Your task to perform on an android device: toggle translation in the chrome app Image 0: 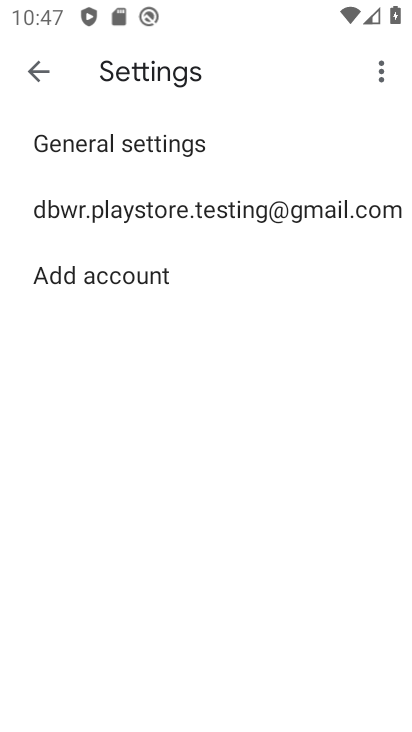
Step 0: press home button
Your task to perform on an android device: toggle translation in the chrome app Image 1: 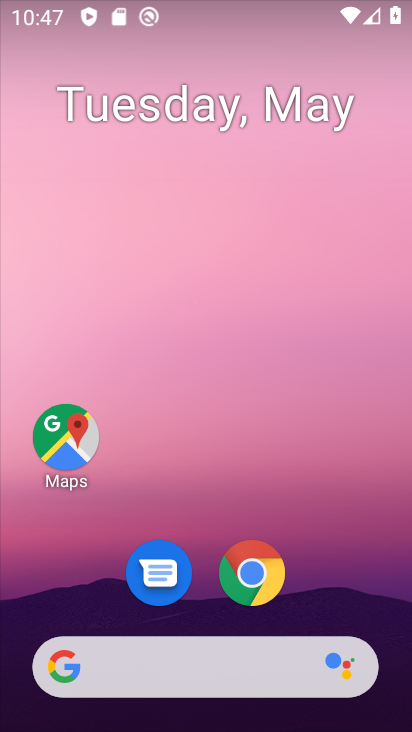
Step 1: click (253, 581)
Your task to perform on an android device: toggle translation in the chrome app Image 2: 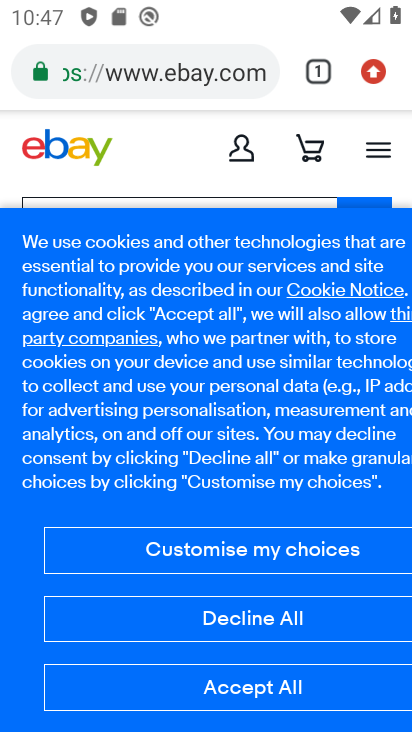
Step 2: click (370, 74)
Your task to perform on an android device: toggle translation in the chrome app Image 3: 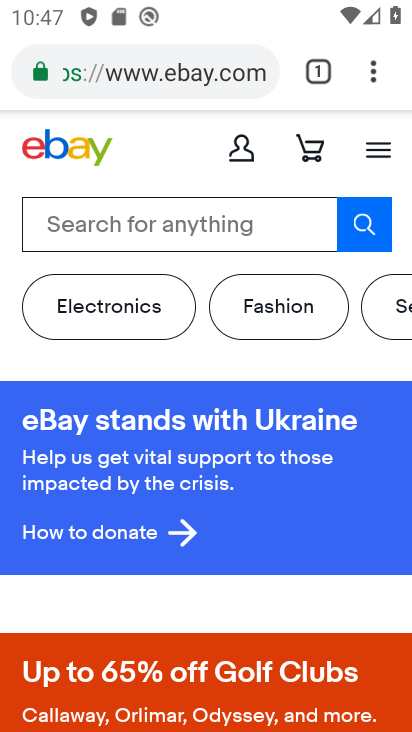
Step 3: click (373, 75)
Your task to perform on an android device: toggle translation in the chrome app Image 4: 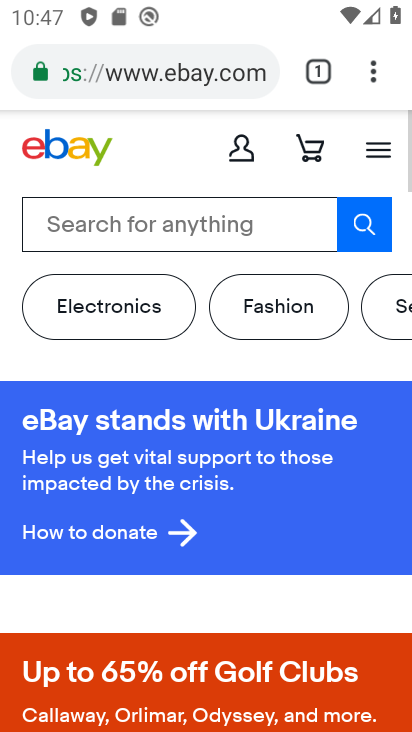
Step 4: click (373, 75)
Your task to perform on an android device: toggle translation in the chrome app Image 5: 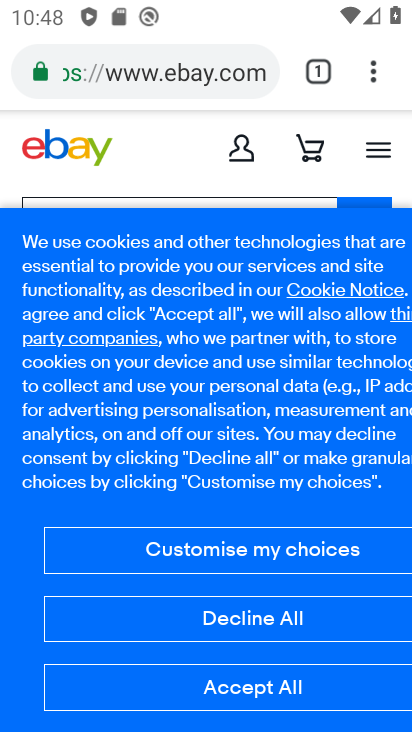
Step 5: click (367, 64)
Your task to perform on an android device: toggle translation in the chrome app Image 6: 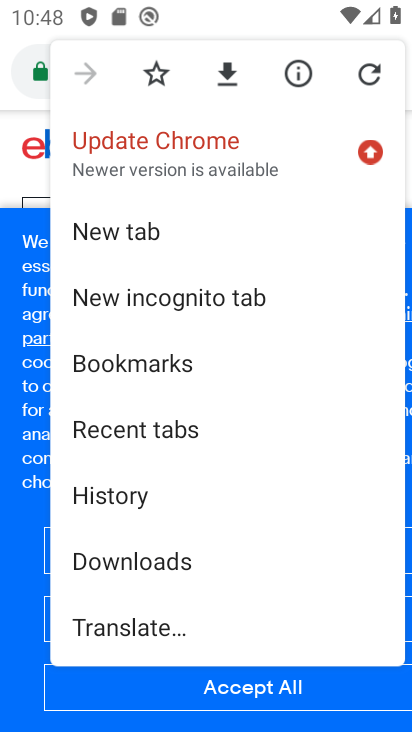
Step 6: drag from (185, 609) to (156, 223)
Your task to perform on an android device: toggle translation in the chrome app Image 7: 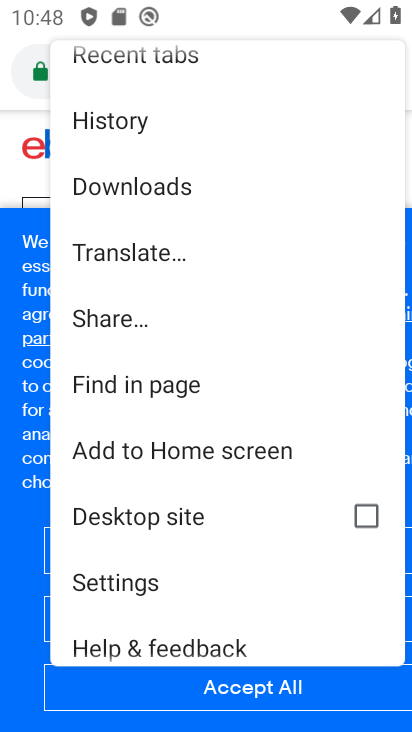
Step 7: click (118, 580)
Your task to perform on an android device: toggle translation in the chrome app Image 8: 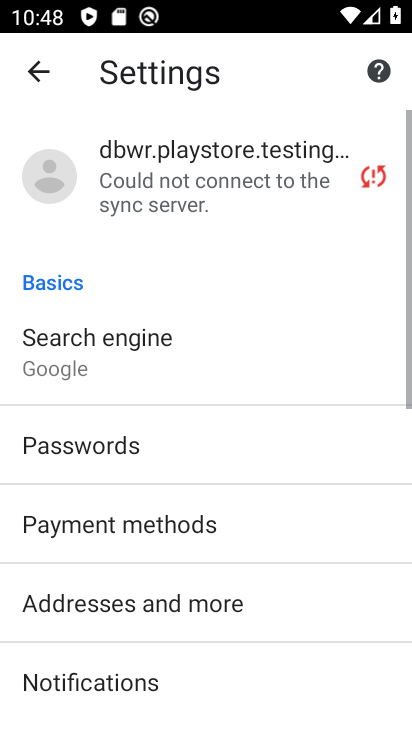
Step 8: drag from (175, 683) to (221, 417)
Your task to perform on an android device: toggle translation in the chrome app Image 9: 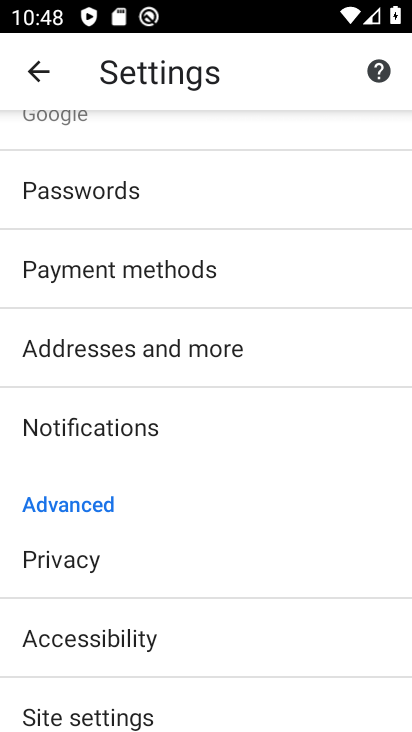
Step 9: drag from (224, 657) to (237, 391)
Your task to perform on an android device: toggle translation in the chrome app Image 10: 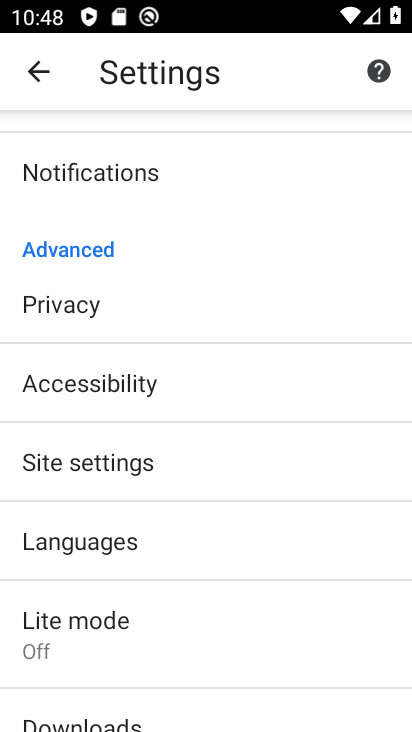
Step 10: click (252, 355)
Your task to perform on an android device: toggle translation in the chrome app Image 11: 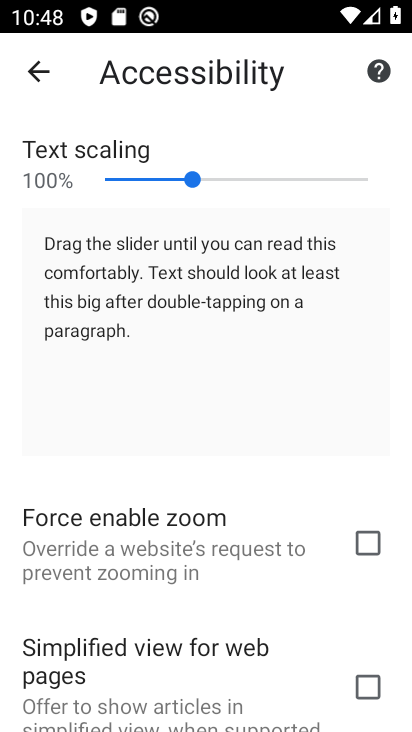
Step 11: click (34, 76)
Your task to perform on an android device: toggle translation in the chrome app Image 12: 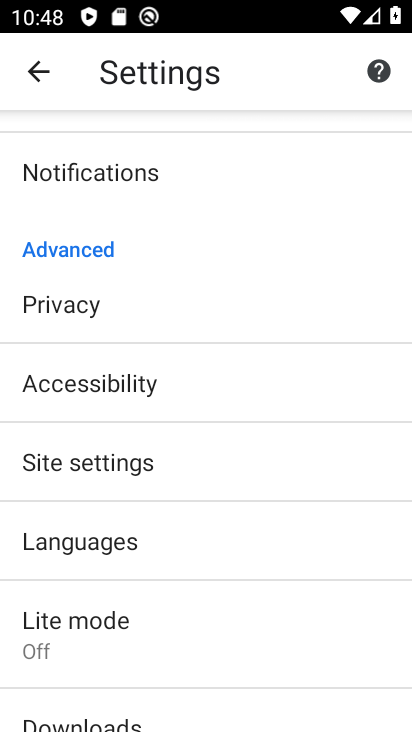
Step 12: click (105, 533)
Your task to perform on an android device: toggle translation in the chrome app Image 13: 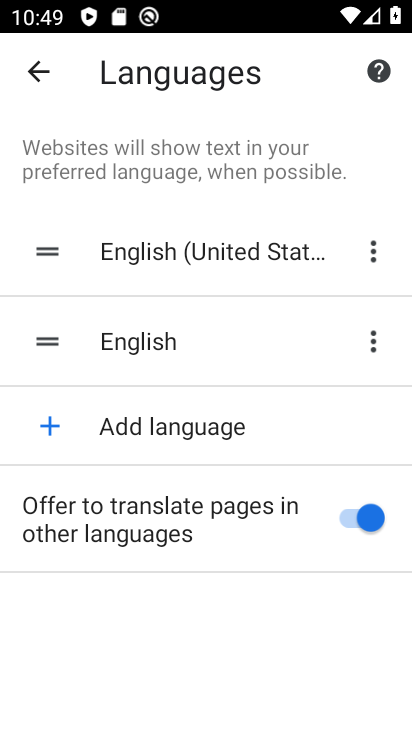
Step 13: click (344, 521)
Your task to perform on an android device: toggle translation in the chrome app Image 14: 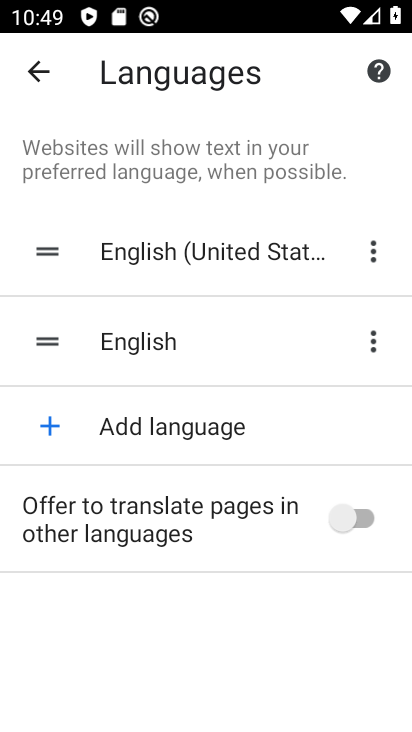
Step 14: task complete